Your task to perform on an android device: What's the weather like in Hong Kong? Image 0: 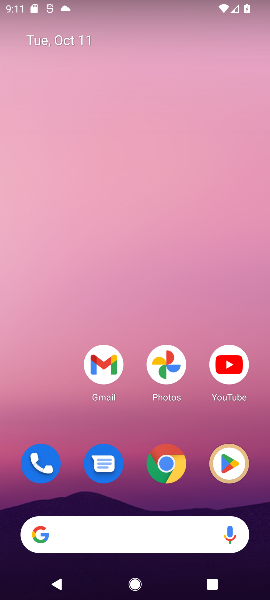
Step 0: drag from (115, 498) to (112, 302)
Your task to perform on an android device: What's the weather like in Hong Kong? Image 1: 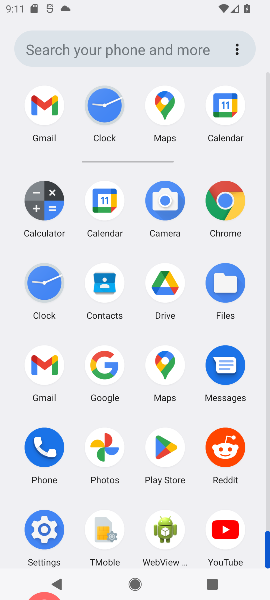
Step 1: click (107, 355)
Your task to perform on an android device: What's the weather like in Hong Kong? Image 2: 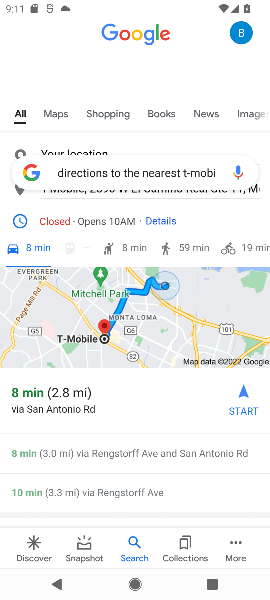
Step 2: click (151, 169)
Your task to perform on an android device: What's the weather like in Hong Kong? Image 3: 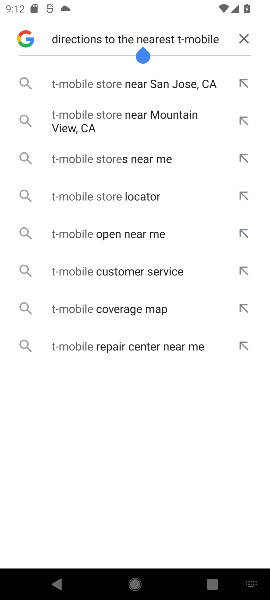
Step 3: click (243, 35)
Your task to perform on an android device: What's the weather like in Hong Kong? Image 4: 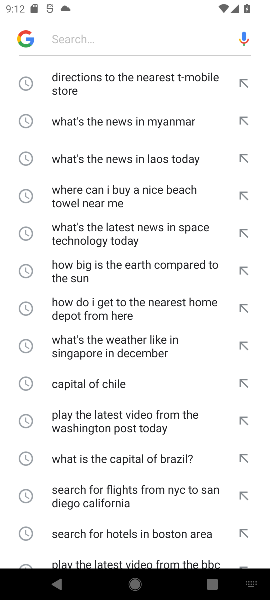
Step 4: click (96, 37)
Your task to perform on an android device: What's the weather like in Hong Kong? Image 5: 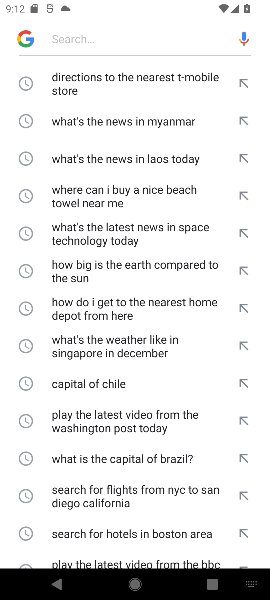
Step 5: type "What's the weather like in Hong Kong? "
Your task to perform on an android device: What's the weather like in Hong Kong? Image 6: 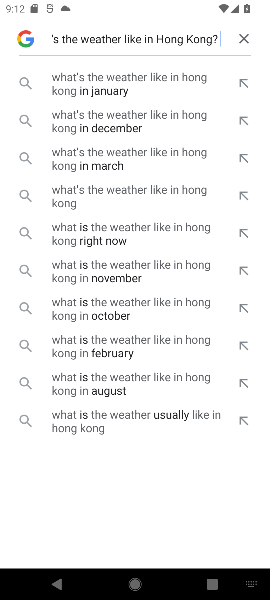
Step 6: click (118, 82)
Your task to perform on an android device: What's the weather like in Hong Kong? Image 7: 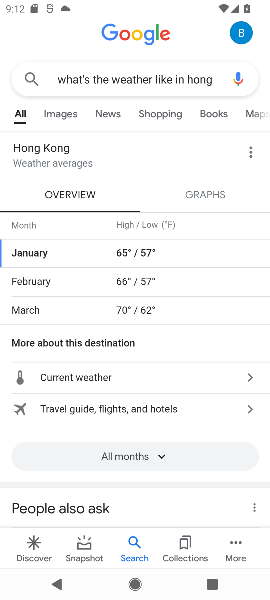
Step 7: drag from (175, 441) to (181, 284)
Your task to perform on an android device: What's the weather like in Hong Kong? Image 8: 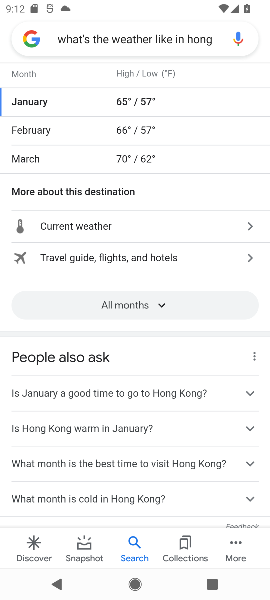
Step 8: drag from (121, 469) to (132, 260)
Your task to perform on an android device: What's the weather like in Hong Kong? Image 9: 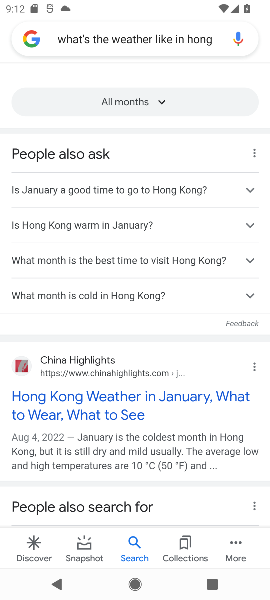
Step 9: click (81, 399)
Your task to perform on an android device: What's the weather like in Hong Kong? Image 10: 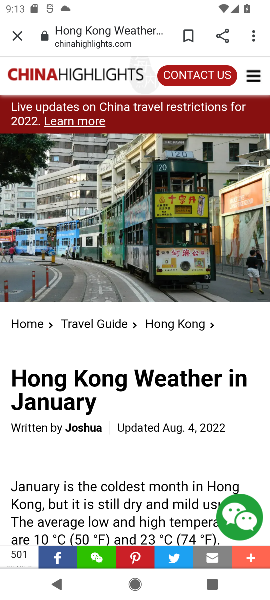
Step 10: task complete